Your task to perform on an android device: turn smart compose on in the gmail app Image 0: 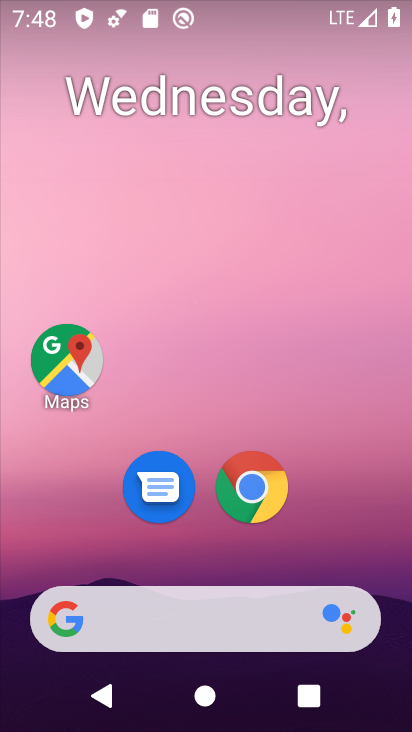
Step 0: drag from (12, 687) to (208, 158)
Your task to perform on an android device: turn smart compose on in the gmail app Image 1: 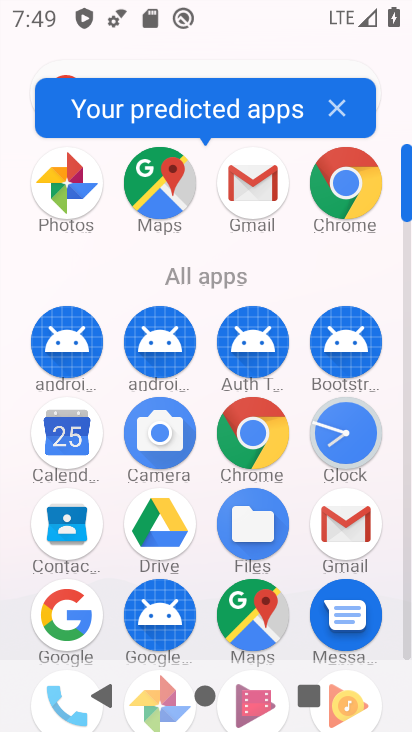
Step 1: click (330, 530)
Your task to perform on an android device: turn smart compose on in the gmail app Image 2: 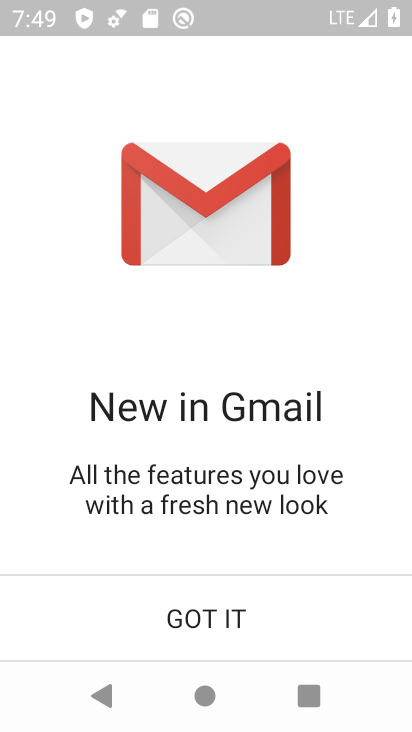
Step 2: click (297, 615)
Your task to perform on an android device: turn smart compose on in the gmail app Image 3: 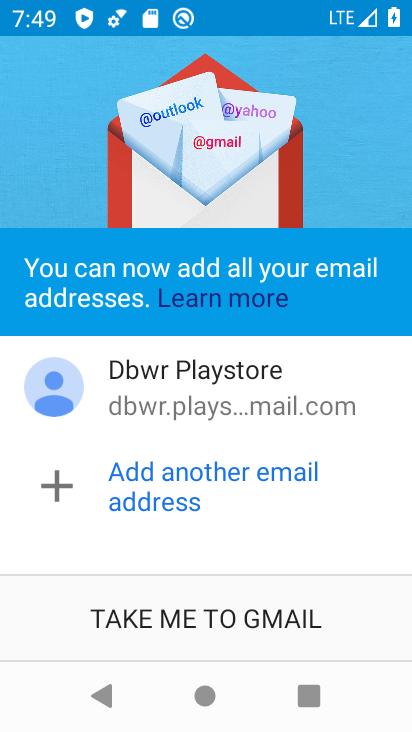
Step 3: click (157, 602)
Your task to perform on an android device: turn smart compose on in the gmail app Image 4: 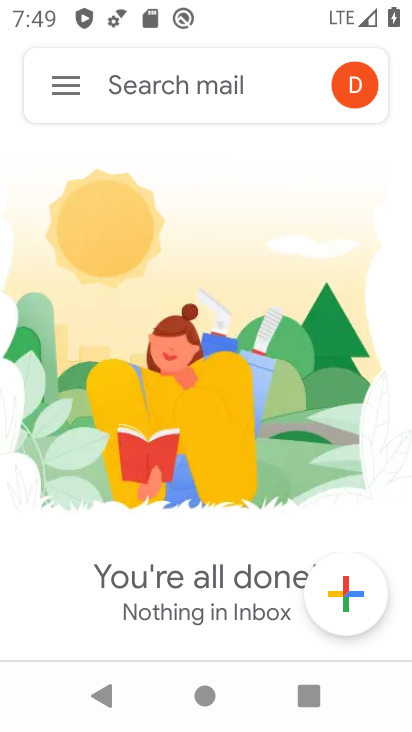
Step 4: click (65, 90)
Your task to perform on an android device: turn smart compose on in the gmail app Image 5: 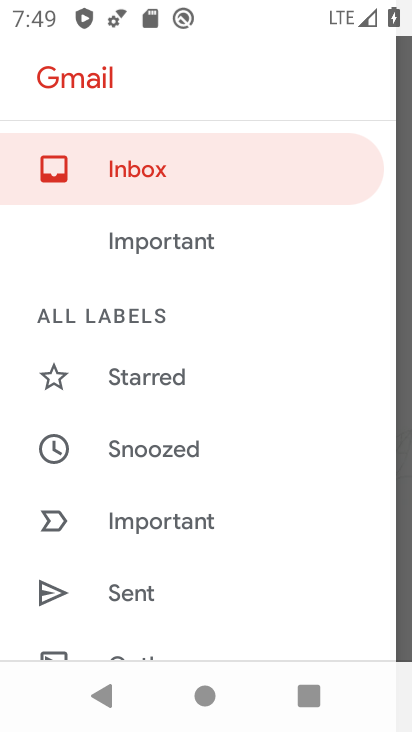
Step 5: drag from (67, 640) to (231, 195)
Your task to perform on an android device: turn smart compose on in the gmail app Image 6: 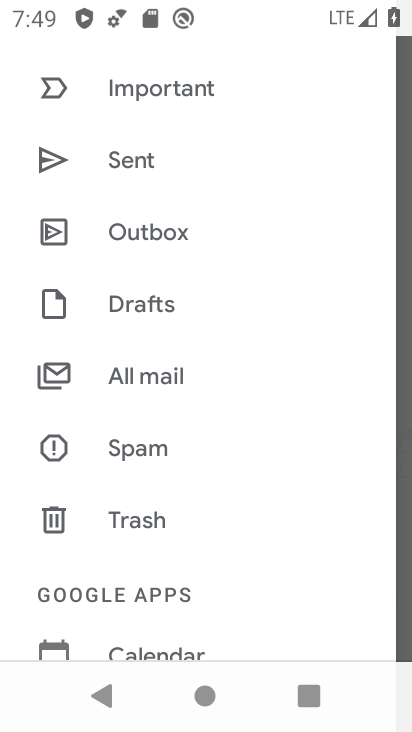
Step 6: drag from (81, 645) to (180, 277)
Your task to perform on an android device: turn smart compose on in the gmail app Image 7: 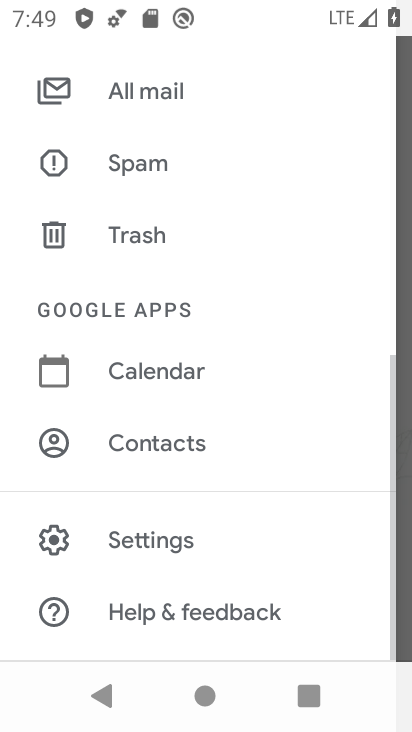
Step 7: click (119, 539)
Your task to perform on an android device: turn smart compose on in the gmail app Image 8: 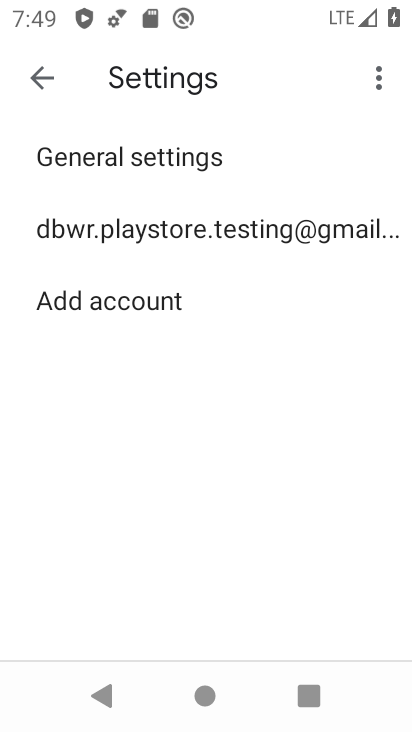
Step 8: click (150, 224)
Your task to perform on an android device: turn smart compose on in the gmail app Image 9: 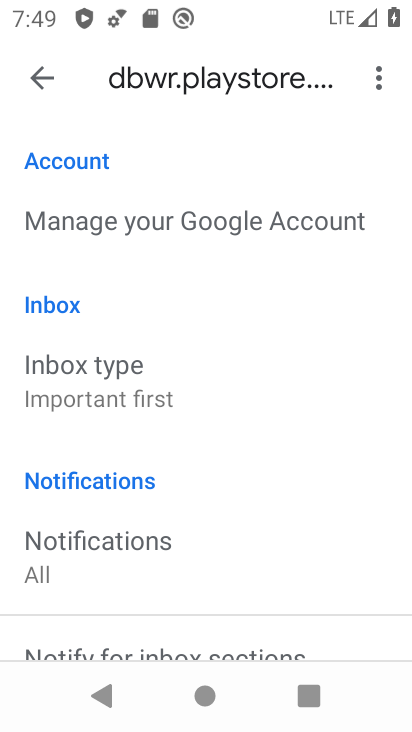
Step 9: task complete